Your task to perform on an android device: Search for 3d printer on AliExpress Image 0: 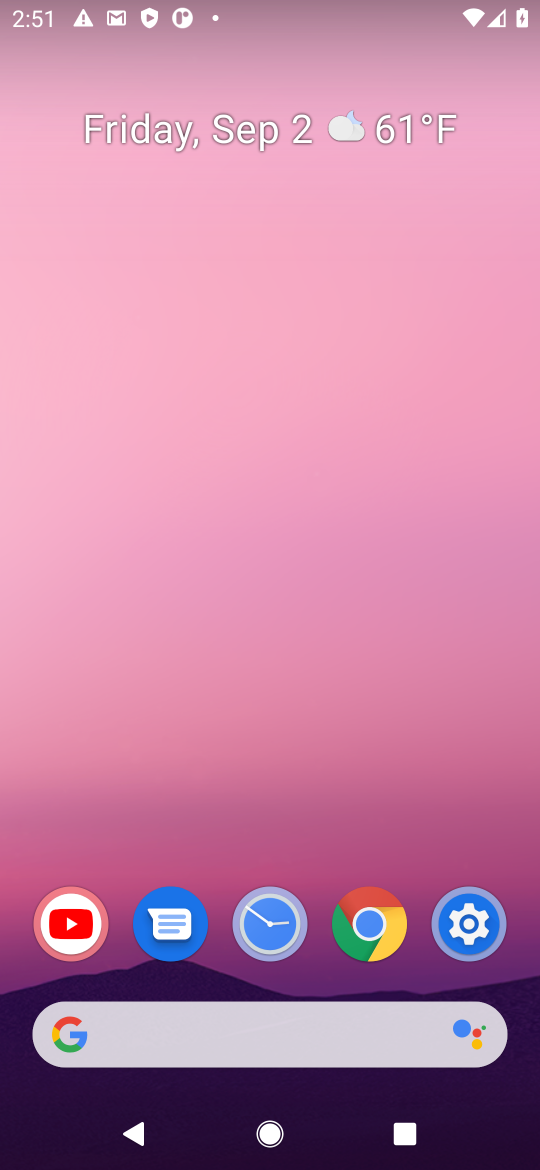
Step 0: click (367, 1045)
Your task to perform on an android device: Search for 3d printer on AliExpress Image 1: 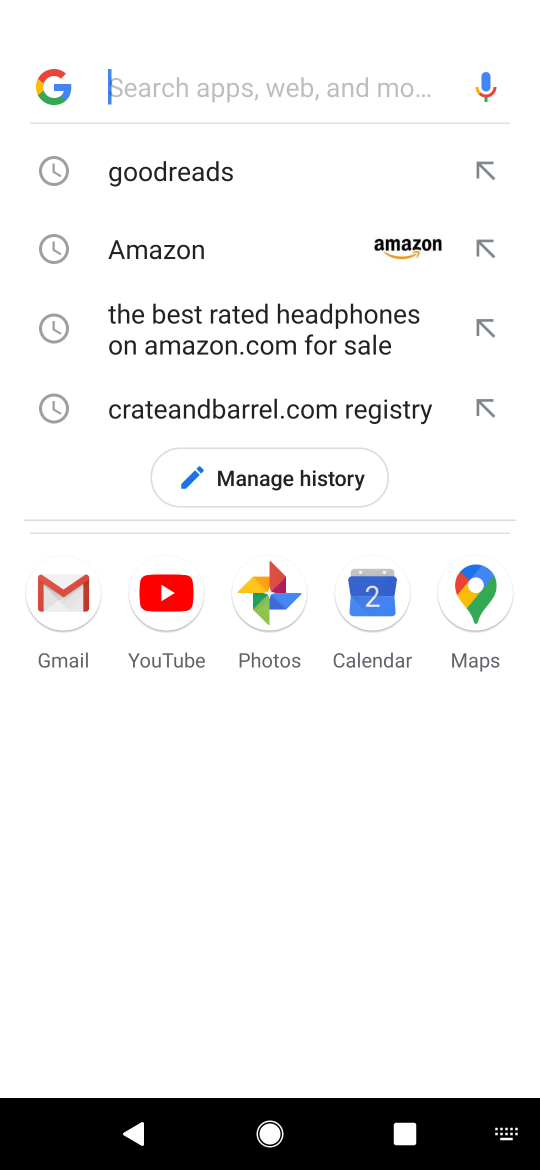
Step 1: press enter
Your task to perform on an android device: Search for 3d printer on AliExpress Image 2: 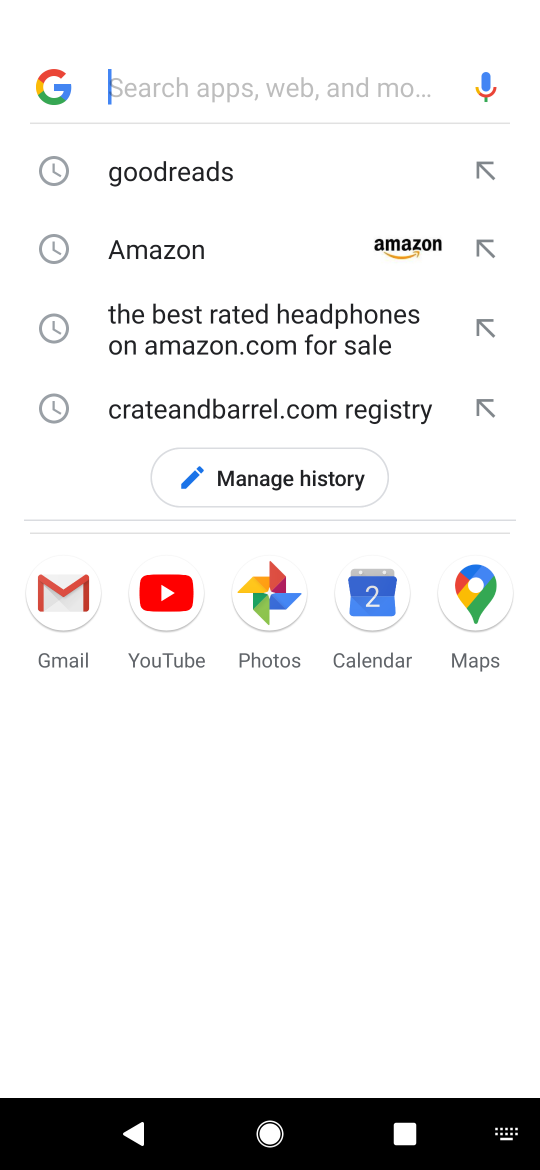
Step 2: type "aliexpress"
Your task to perform on an android device: Search for 3d printer on AliExpress Image 3: 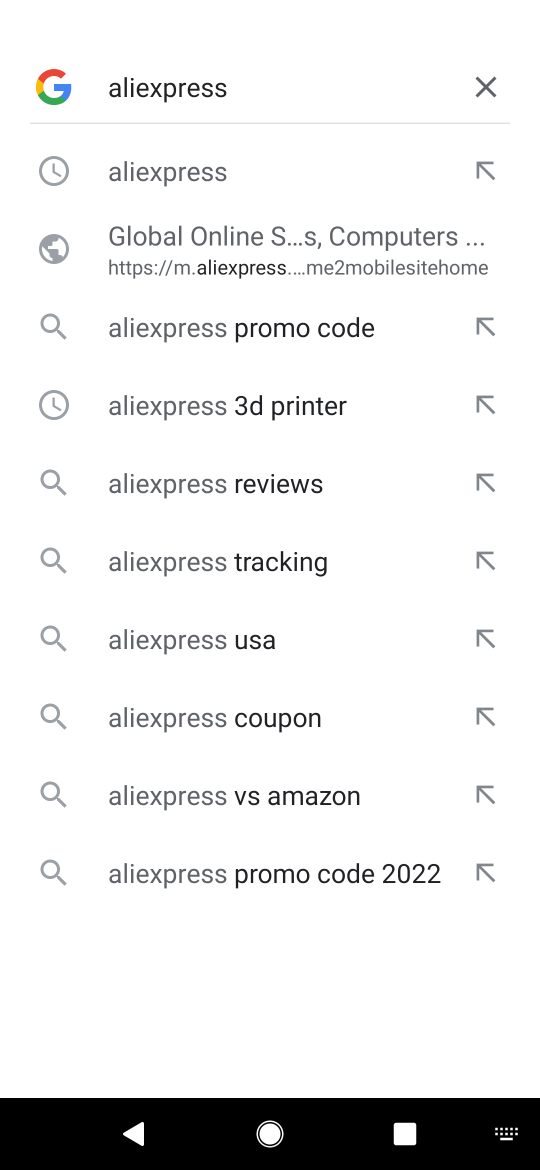
Step 3: click (339, 262)
Your task to perform on an android device: Search for 3d printer on AliExpress Image 4: 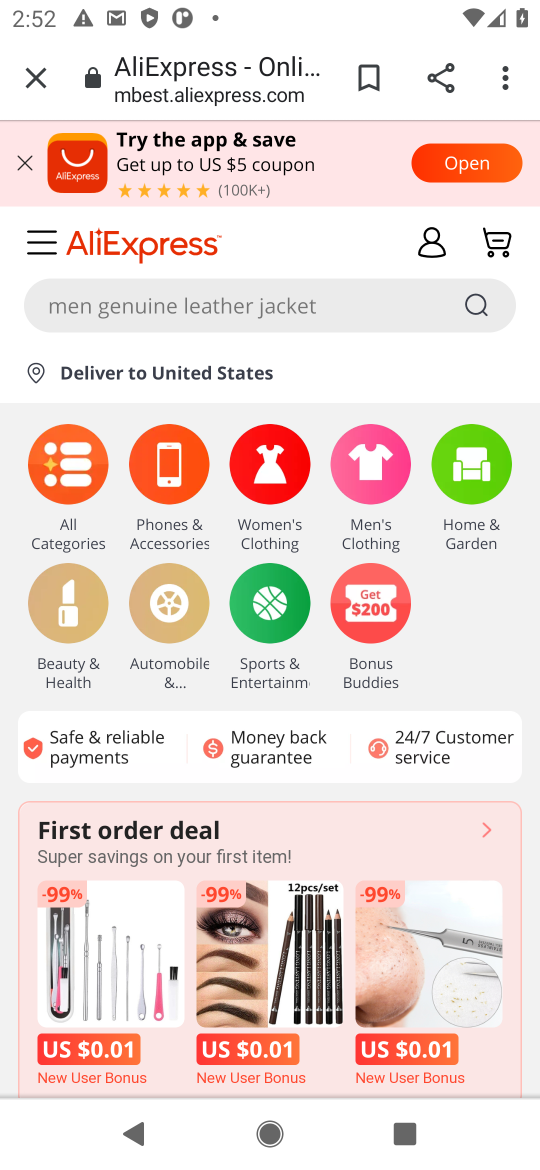
Step 4: click (322, 295)
Your task to perform on an android device: Search for 3d printer on AliExpress Image 5: 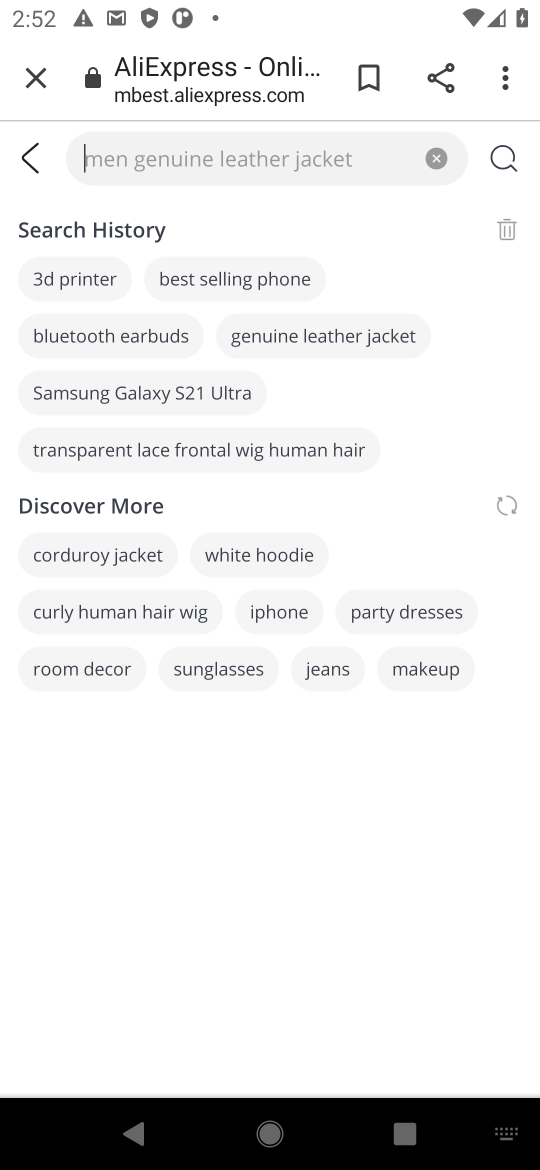
Step 5: click (86, 270)
Your task to perform on an android device: Search for 3d printer on AliExpress Image 6: 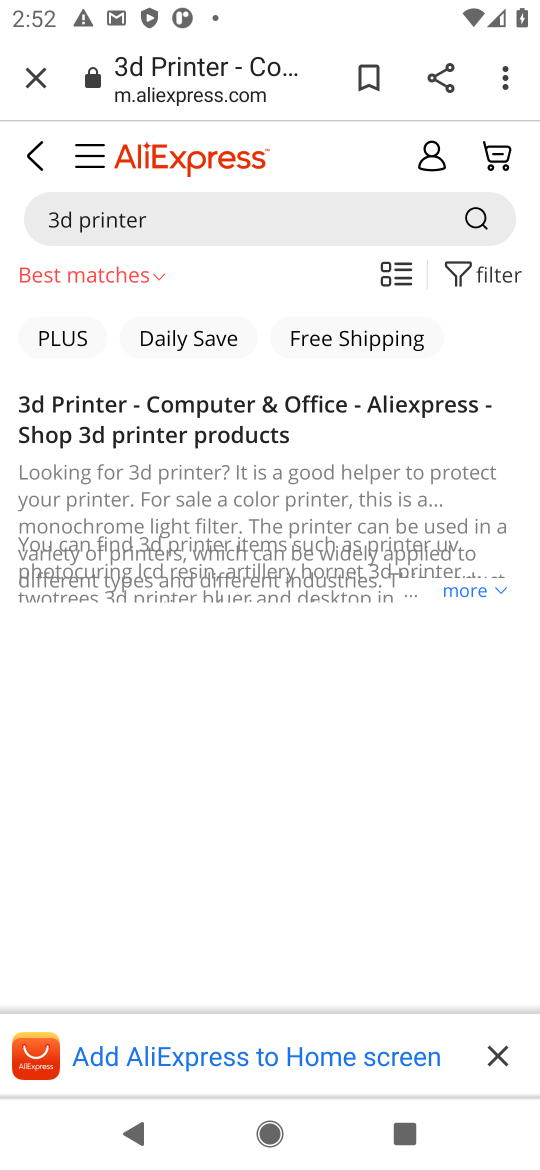
Step 6: click (470, 219)
Your task to perform on an android device: Search for 3d printer on AliExpress Image 7: 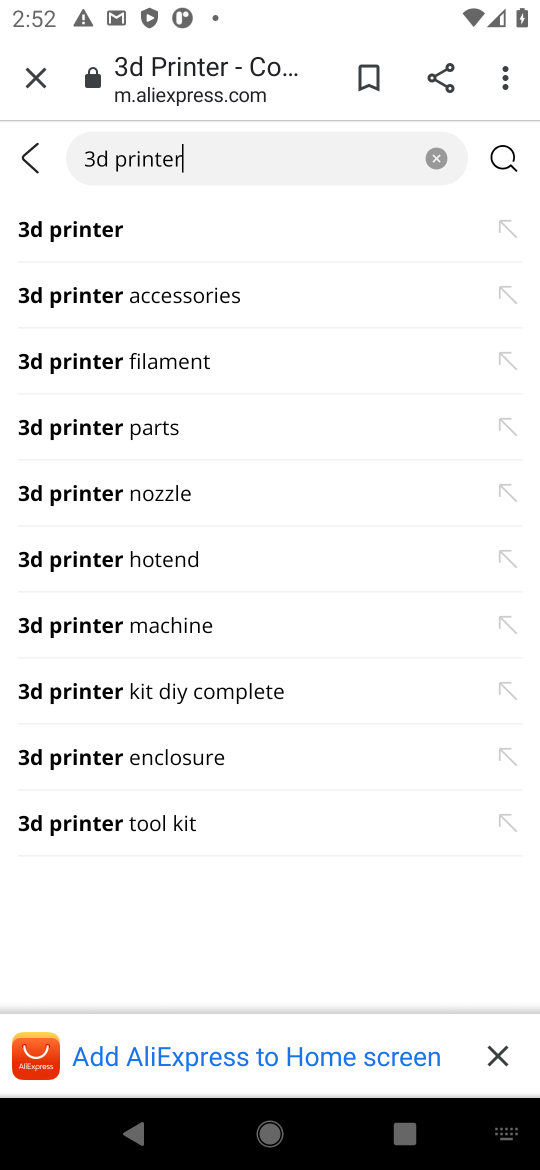
Step 7: click (73, 237)
Your task to perform on an android device: Search for 3d printer on AliExpress Image 8: 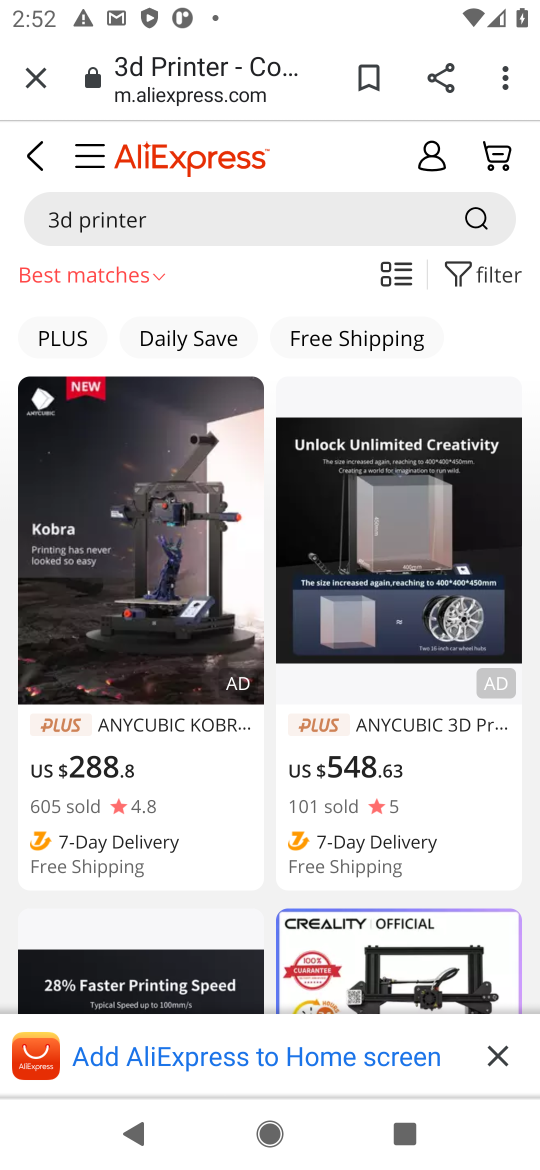
Step 8: task complete